Your task to perform on an android device: manage bookmarks in the chrome app Image 0: 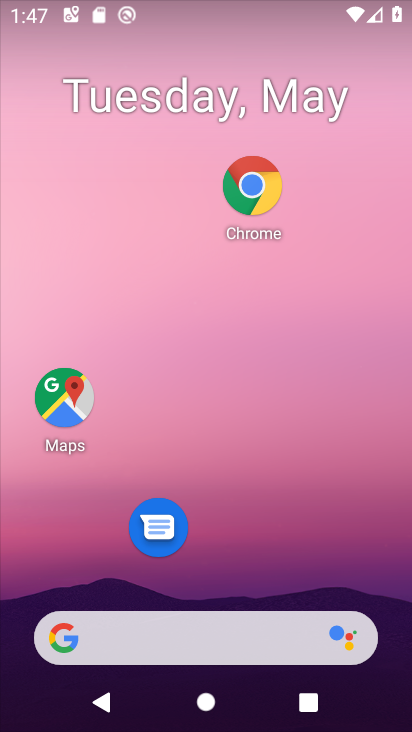
Step 0: click (253, 180)
Your task to perform on an android device: manage bookmarks in the chrome app Image 1: 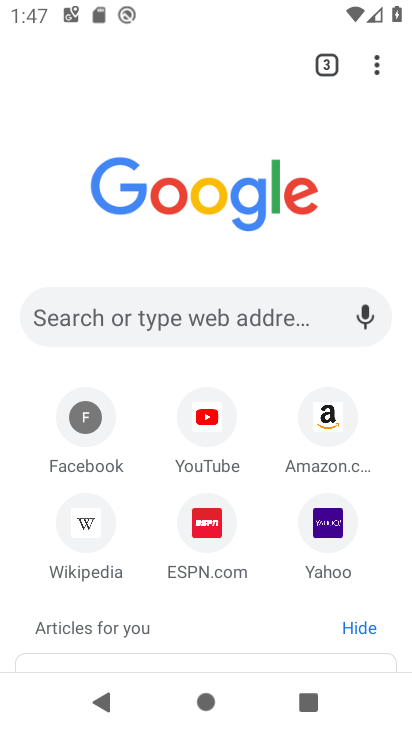
Step 1: click (381, 70)
Your task to perform on an android device: manage bookmarks in the chrome app Image 2: 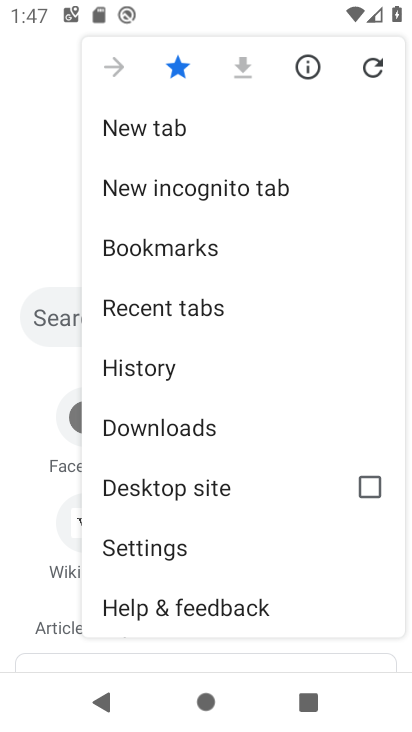
Step 2: click (161, 243)
Your task to perform on an android device: manage bookmarks in the chrome app Image 3: 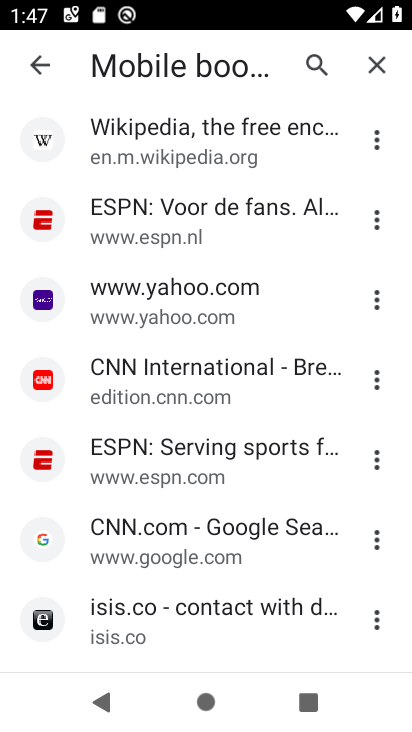
Step 3: click (381, 215)
Your task to perform on an android device: manage bookmarks in the chrome app Image 4: 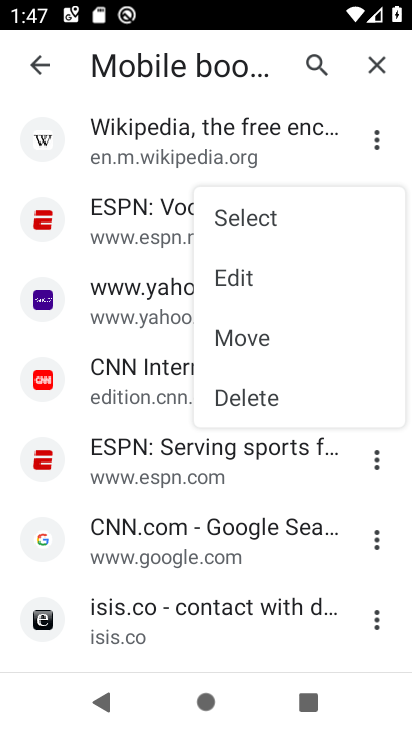
Step 4: click (239, 268)
Your task to perform on an android device: manage bookmarks in the chrome app Image 5: 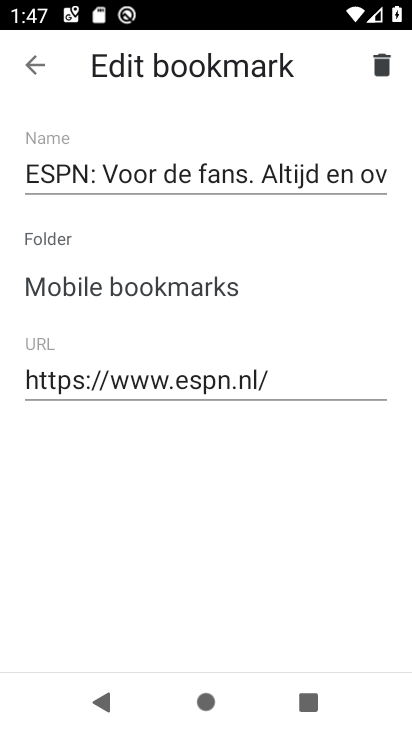
Step 5: task complete